Your task to perform on an android device: check the backup settings in the google photos Image 0: 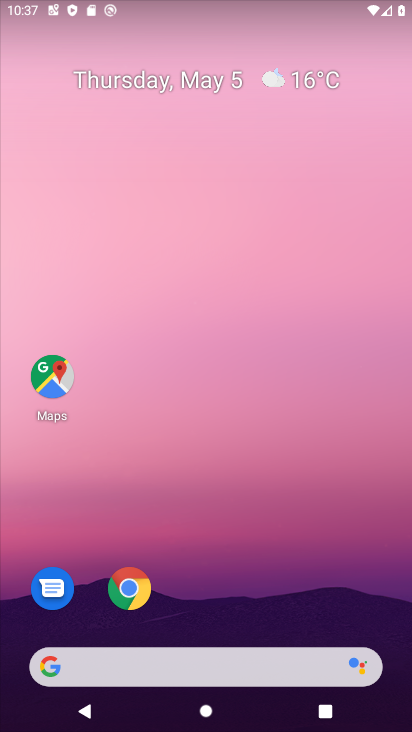
Step 0: drag from (253, 584) to (285, 53)
Your task to perform on an android device: check the backup settings in the google photos Image 1: 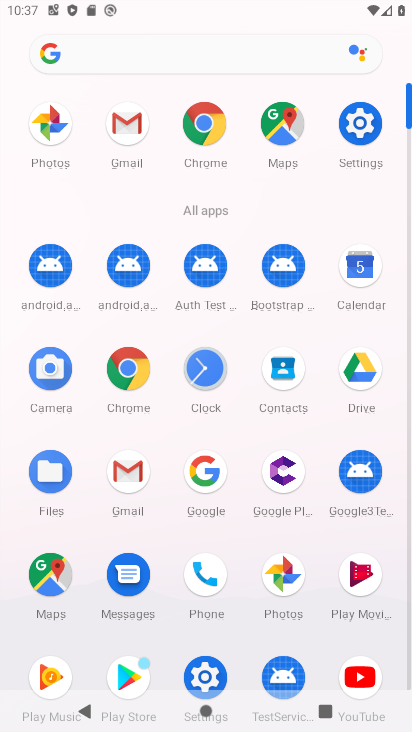
Step 1: click (52, 133)
Your task to perform on an android device: check the backup settings in the google photos Image 2: 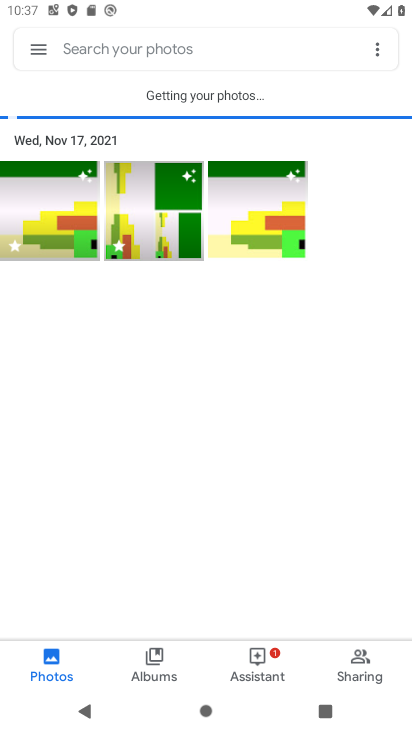
Step 2: click (37, 50)
Your task to perform on an android device: check the backup settings in the google photos Image 3: 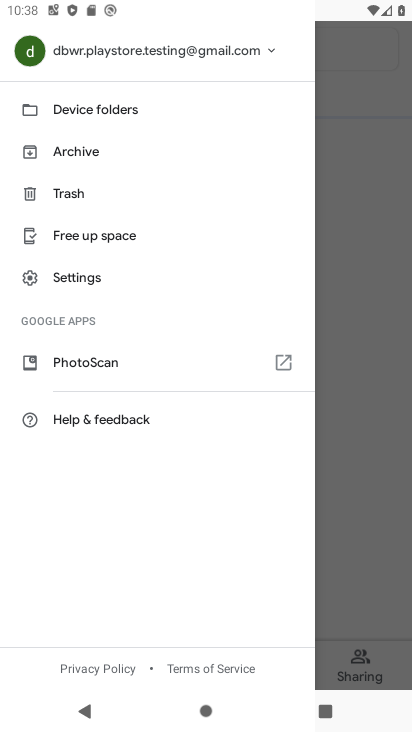
Step 3: click (96, 284)
Your task to perform on an android device: check the backup settings in the google photos Image 4: 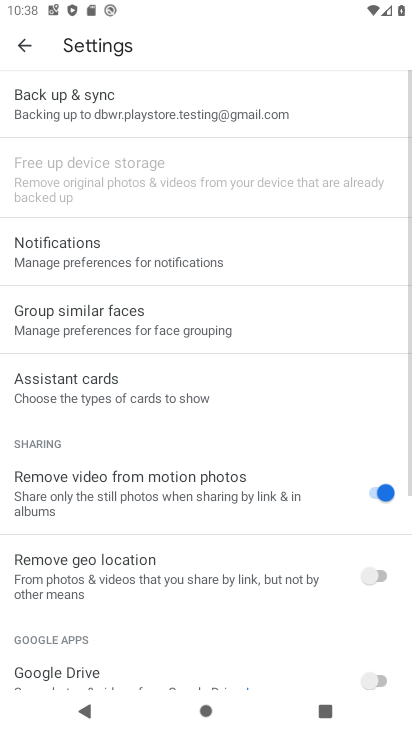
Step 4: click (134, 132)
Your task to perform on an android device: check the backup settings in the google photos Image 5: 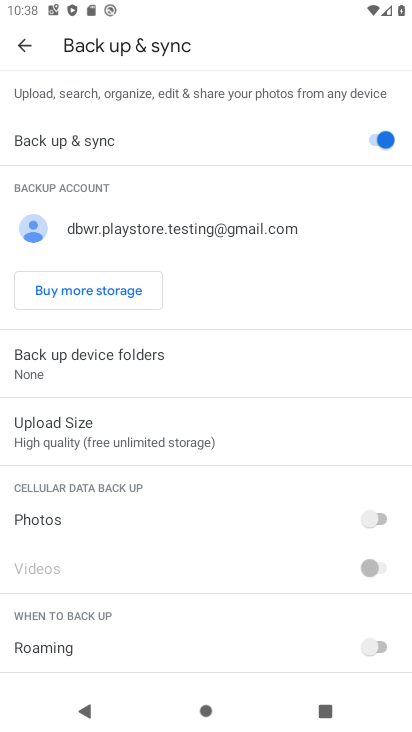
Step 5: task complete